Your task to perform on an android device: uninstall "Messages" Image 0: 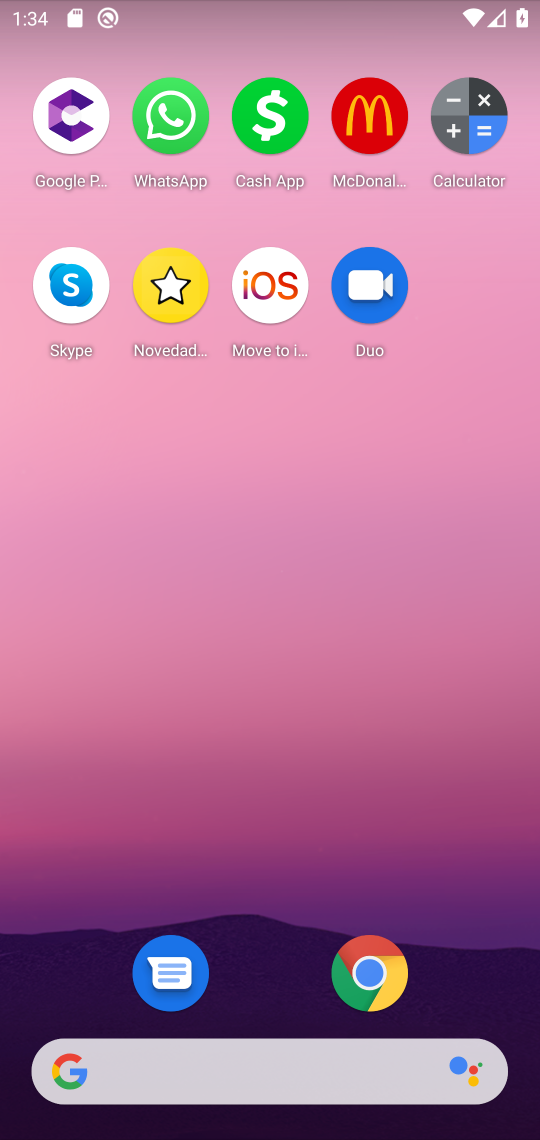
Step 0: click (150, 985)
Your task to perform on an android device: uninstall "Messages" Image 1: 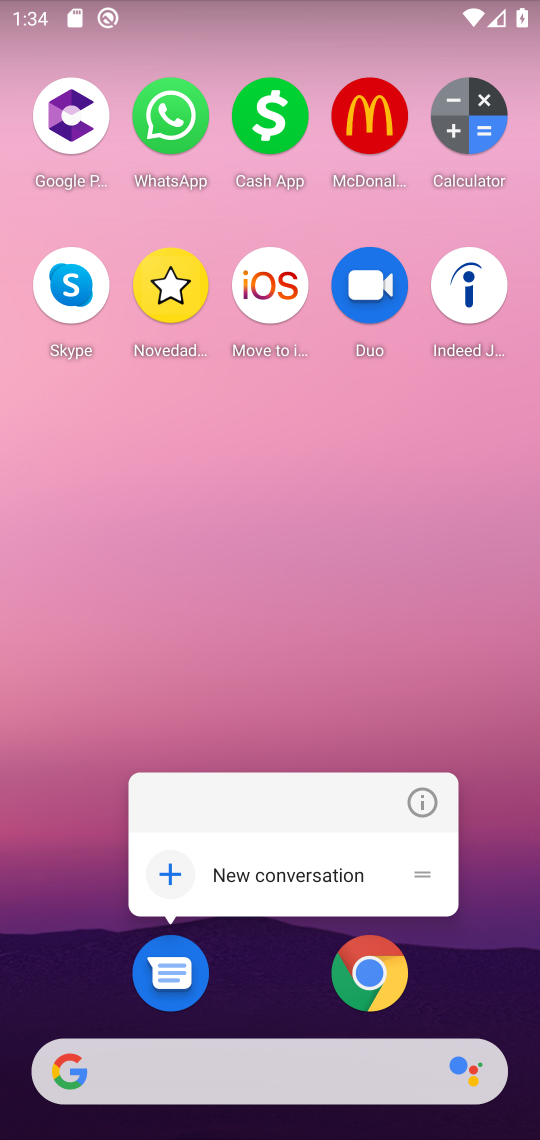
Step 1: drag from (275, 1016) to (296, 793)
Your task to perform on an android device: uninstall "Messages" Image 2: 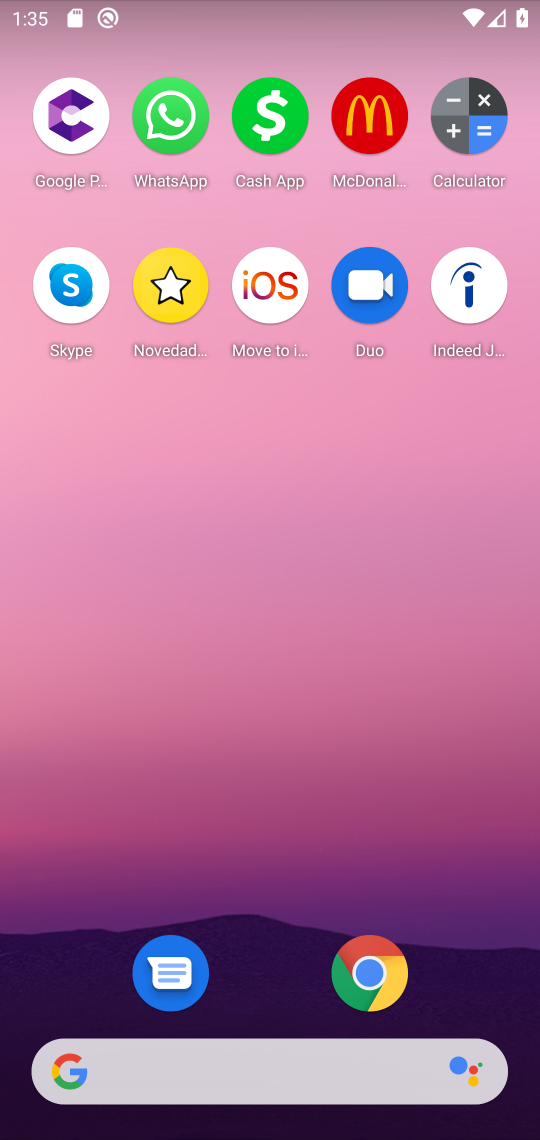
Step 2: click (296, 793)
Your task to perform on an android device: uninstall "Messages" Image 3: 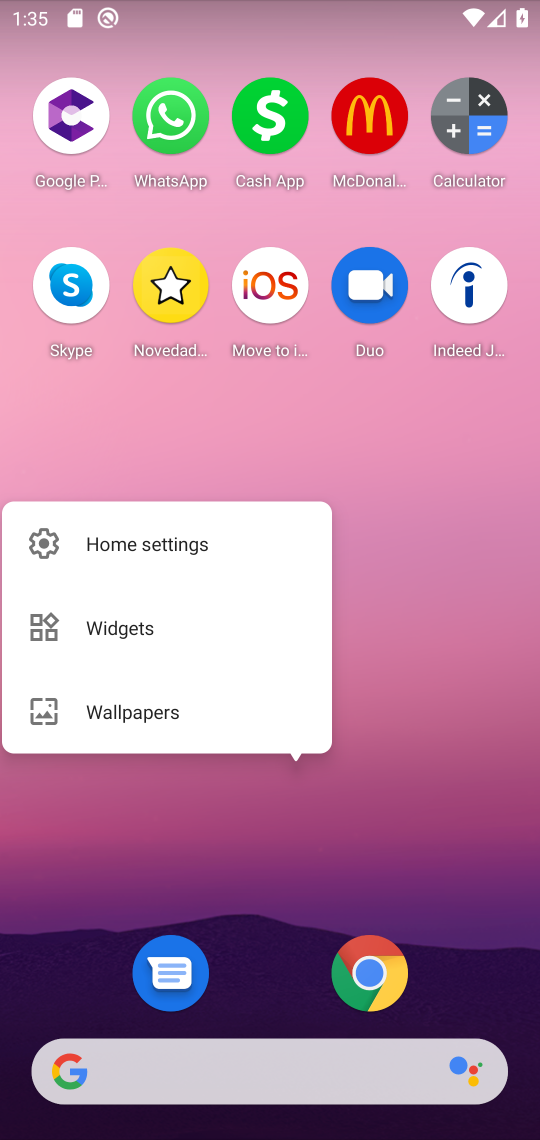
Step 3: task complete